Your task to perform on an android device: turn off wifi Image 0: 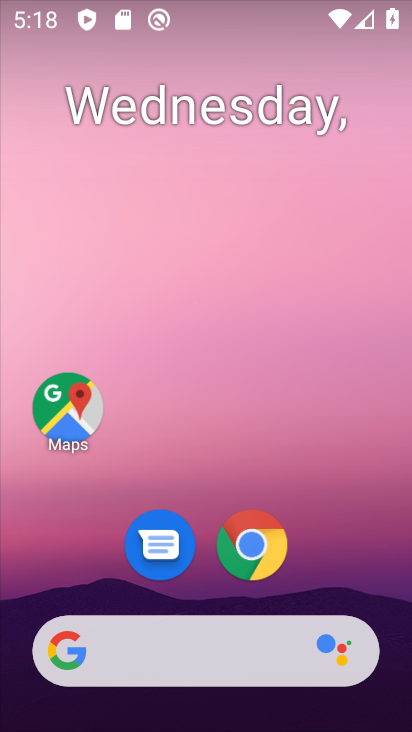
Step 0: drag from (153, 99) to (212, 557)
Your task to perform on an android device: turn off wifi Image 1: 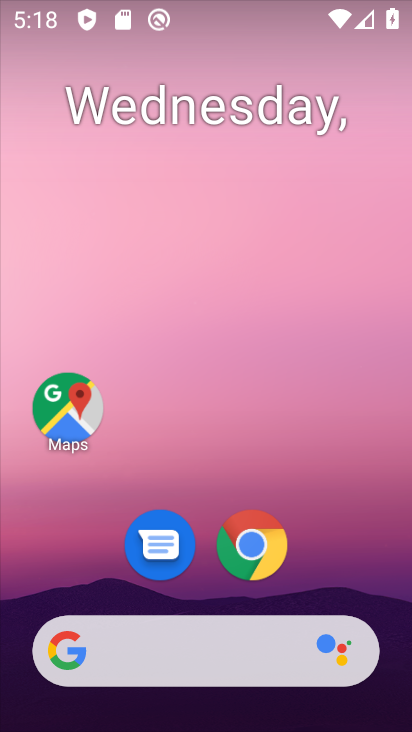
Step 1: drag from (133, 17) to (166, 370)
Your task to perform on an android device: turn off wifi Image 2: 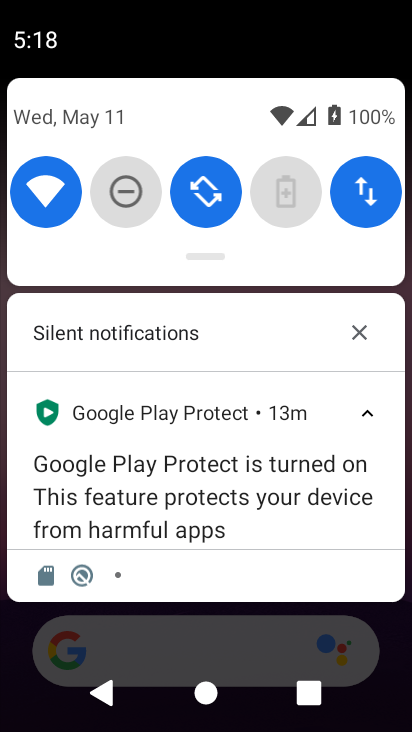
Step 2: click (47, 194)
Your task to perform on an android device: turn off wifi Image 3: 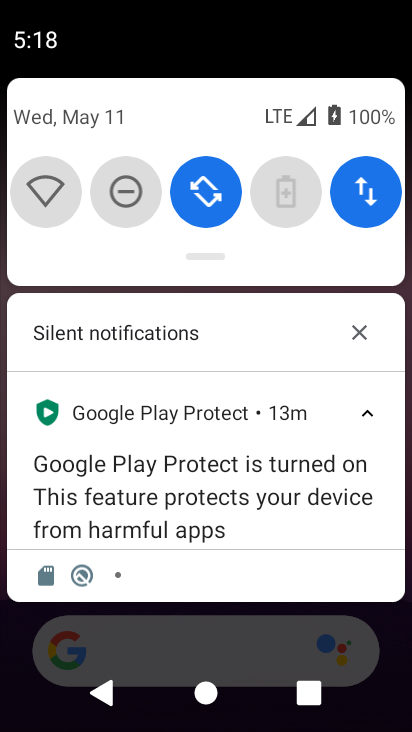
Step 3: task complete